Your task to perform on an android device: allow notifications from all sites in the chrome app Image 0: 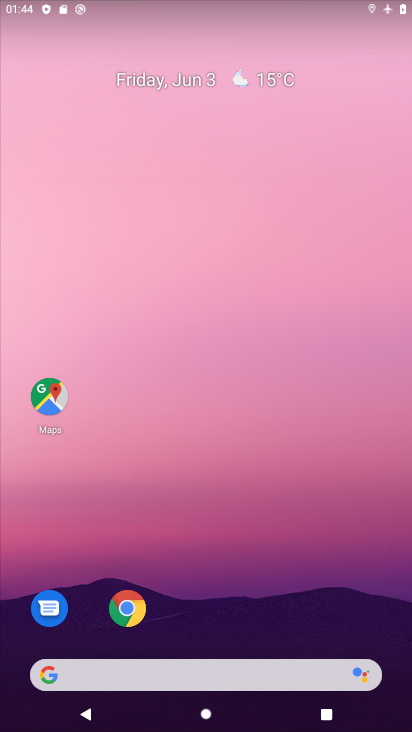
Step 0: click (121, 603)
Your task to perform on an android device: allow notifications from all sites in the chrome app Image 1: 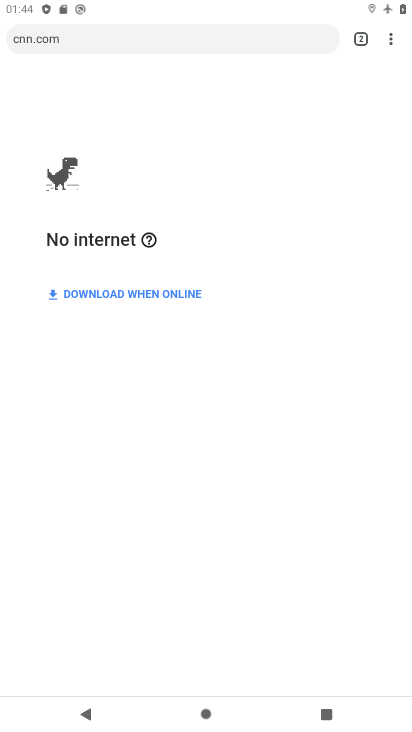
Step 1: drag from (391, 37) to (257, 483)
Your task to perform on an android device: allow notifications from all sites in the chrome app Image 2: 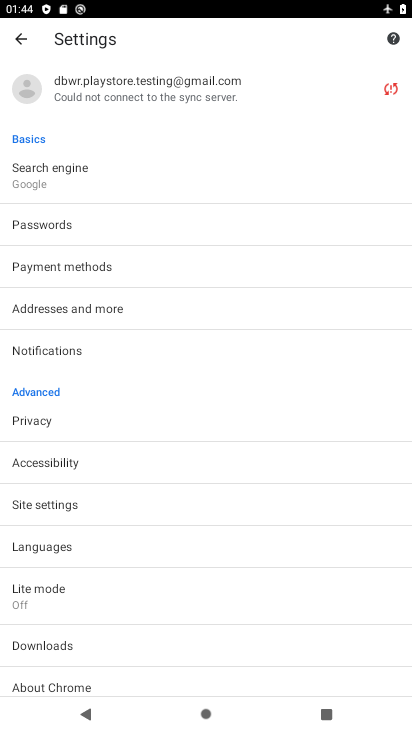
Step 2: click (54, 348)
Your task to perform on an android device: allow notifications from all sites in the chrome app Image 3: 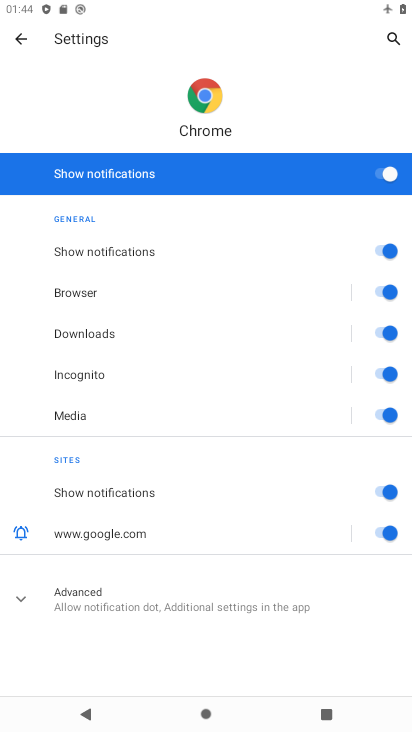
Step 3: drag from (218, 545) to (203, 67)
Your task to perform on an android device: allow notifications from all sites in the chrome app Image 4: 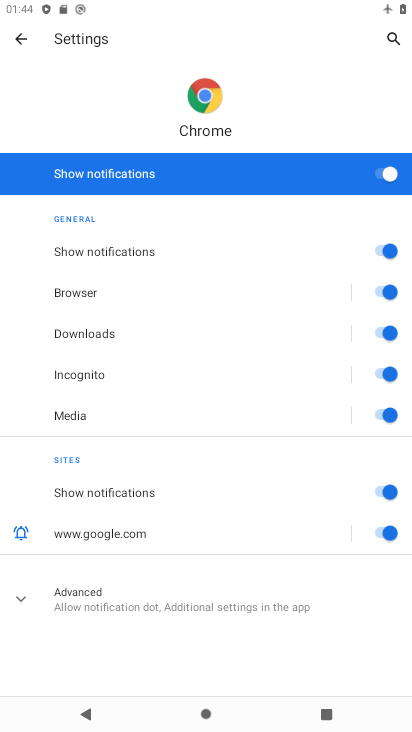
Step 4: click (147, 605)
Your task to perform on an android device: allow notifications from all sites in the chrome app Image 5: 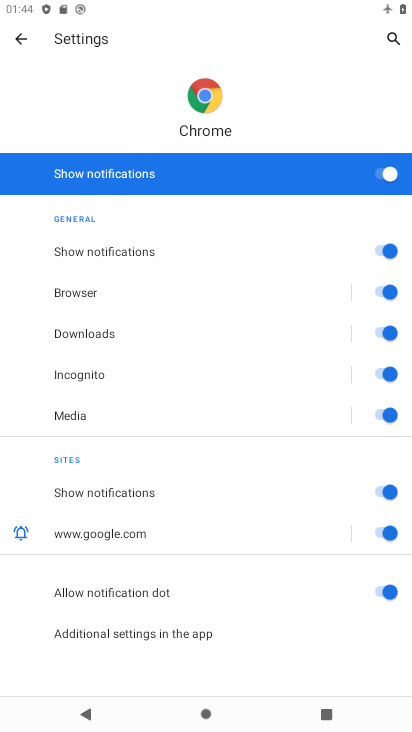
Step 5: task complete